Your task to perform on an android device: Add logitech g933 to the cart on walmart.com Image 0: 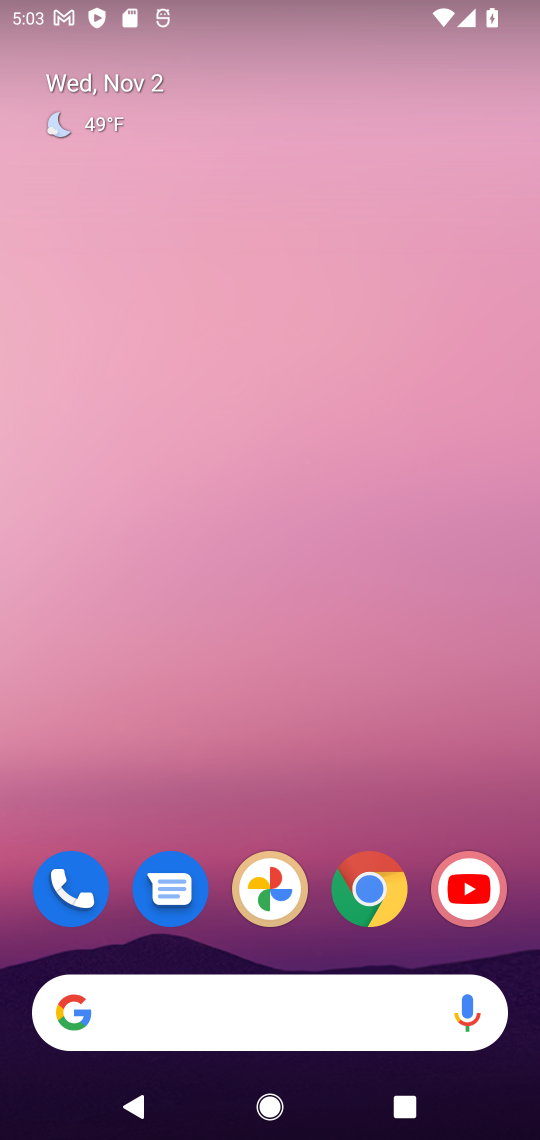
Step 0: click (373, 886)
Your task to perform on an android device: Add logitech g933 to the cart on walmart.com Image 1: 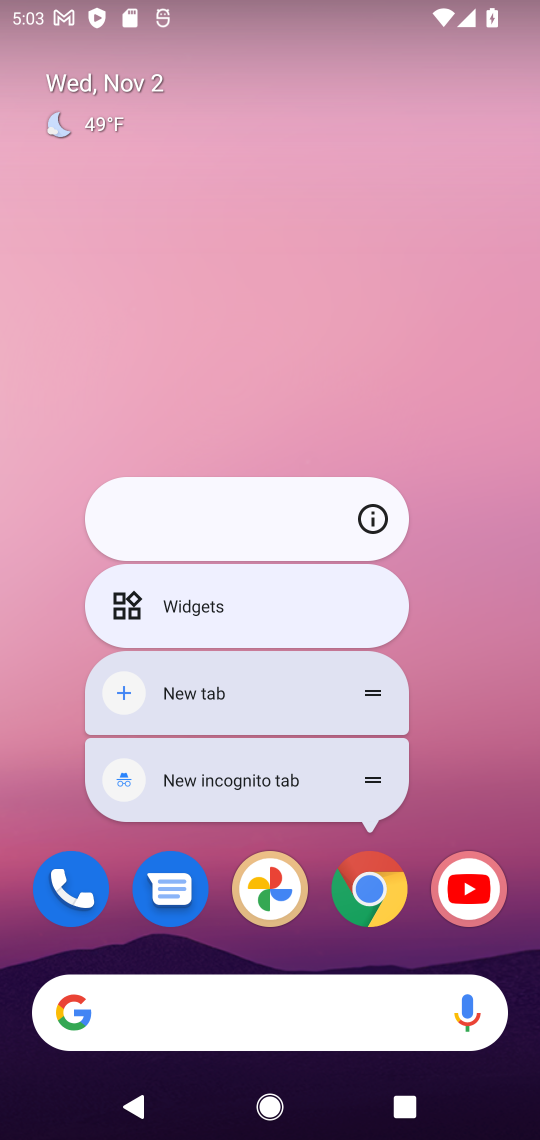
Step 1: click (375, 885)
Your task to perform on an android device: Add logitech g933 to the cart on walmart.com Image 2: 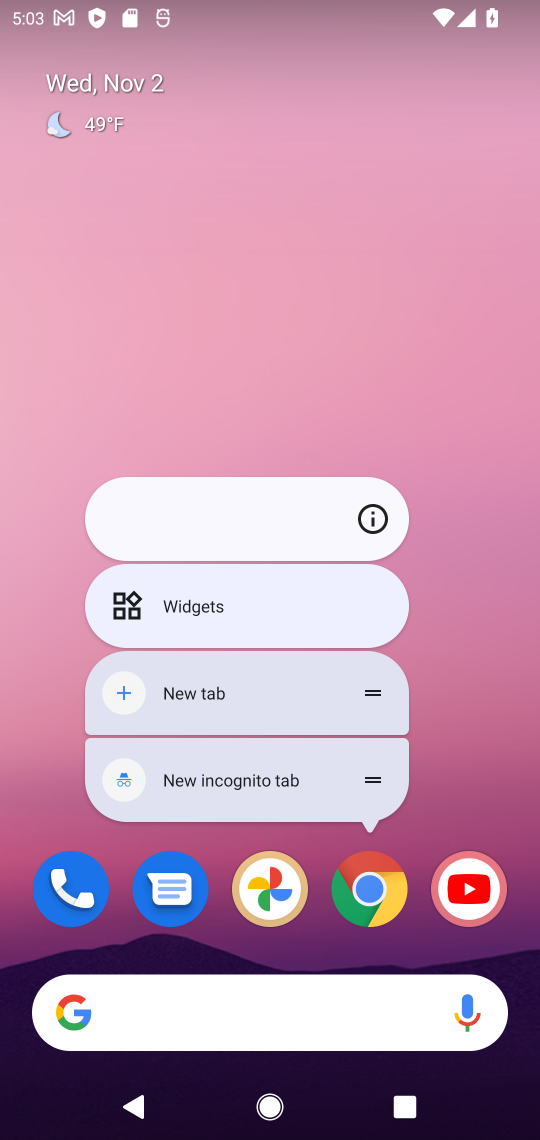
Step 2: click (364, 887)
Your task to perform on an android device: Add logitech g933 to the cart on walmart.com Image 3: 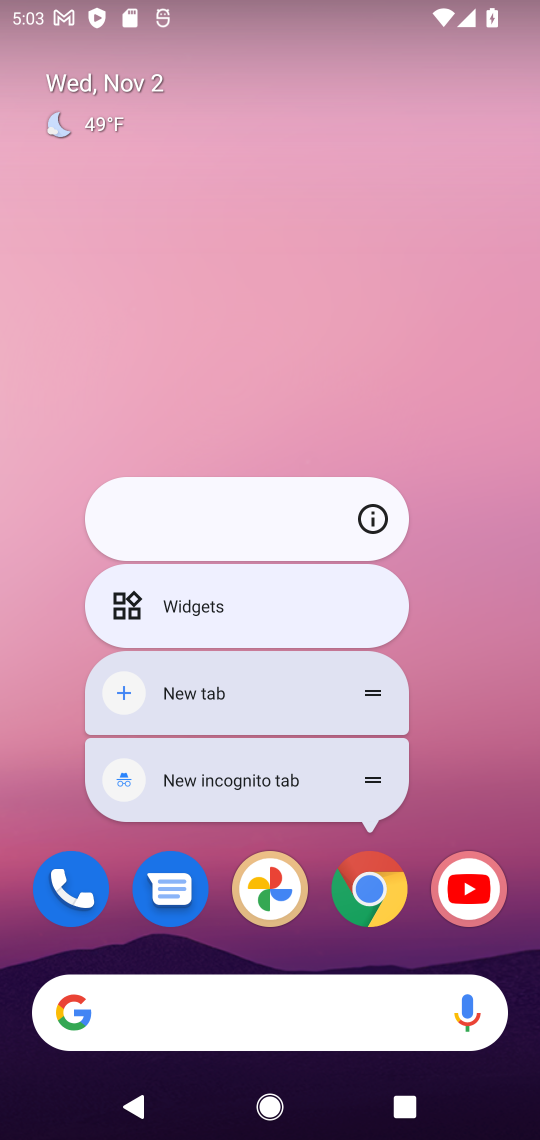
Step 3: click (364, 887)
Your task to perform on an android device: Add logitech g933 to the cart on walmart.com Image 4: 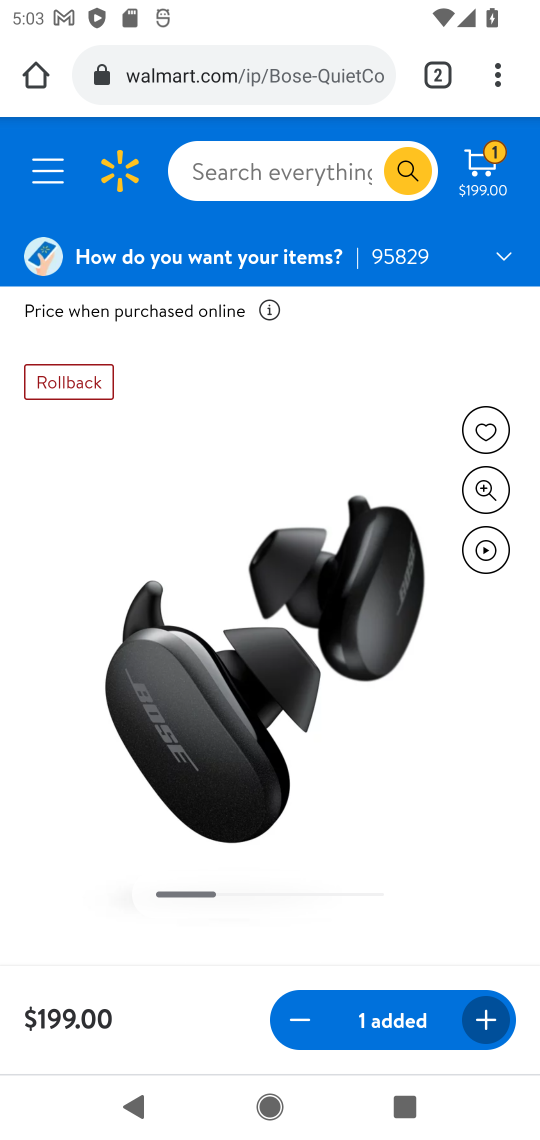
Step 4: click (295, 176)
Your task to perform on an android device: Add logitech g933 to the cart on walmart.com Image 5: 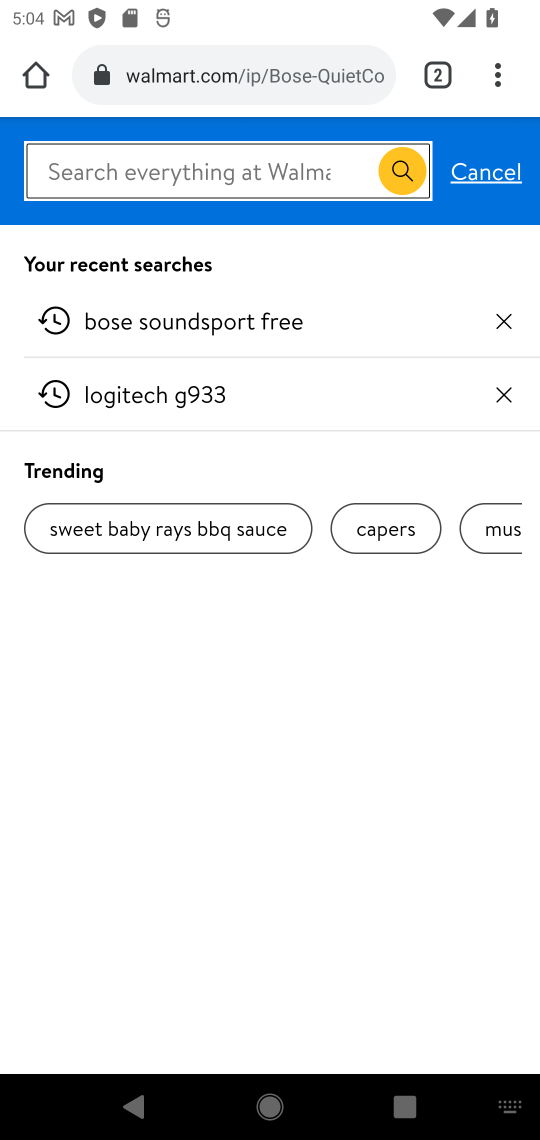
Step 5: type "logitech g933"
Your task to perform on an android device: Add logitech g933 to the cart on walmart.com Image 6: 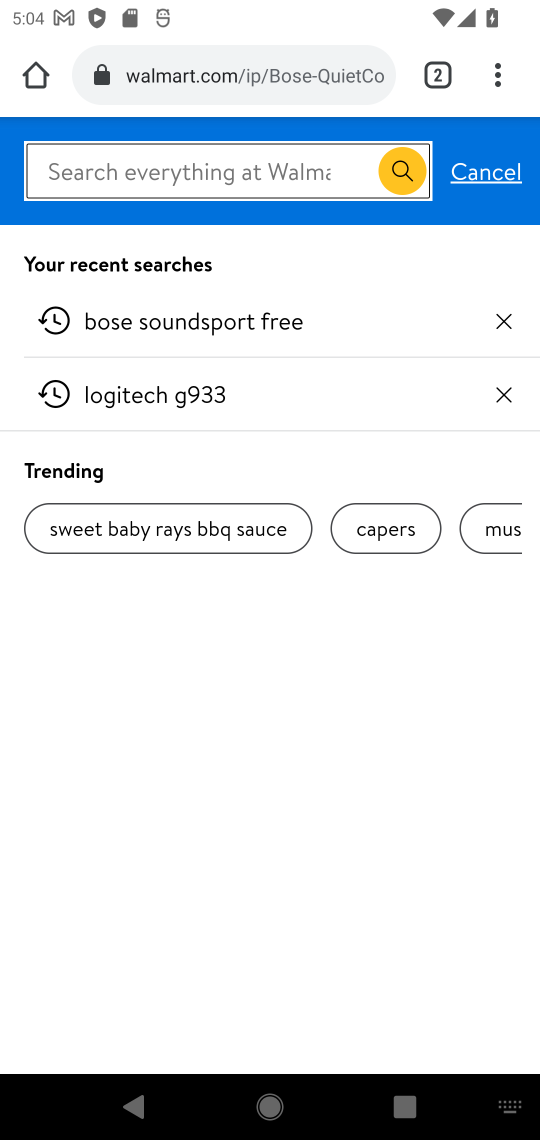
Step 6: press enter
Your task to perform on an android device: Add logitech g933 to the cart on walmart.com Image 7: 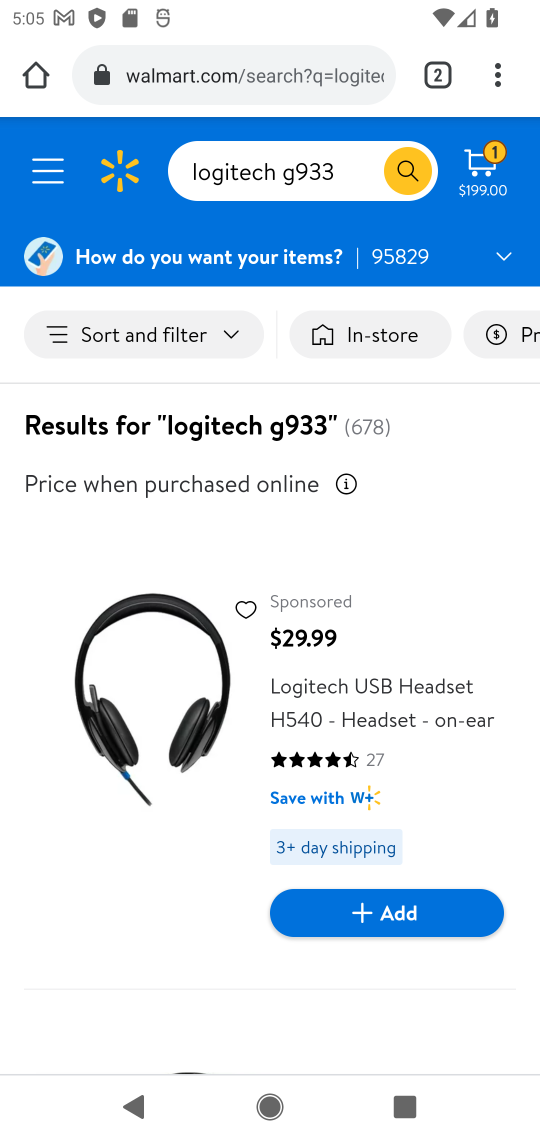
Step 7: click (397, 913)
Your task to perform on an android device: Add logitech g933 to the cart on walmart.com Image 8: 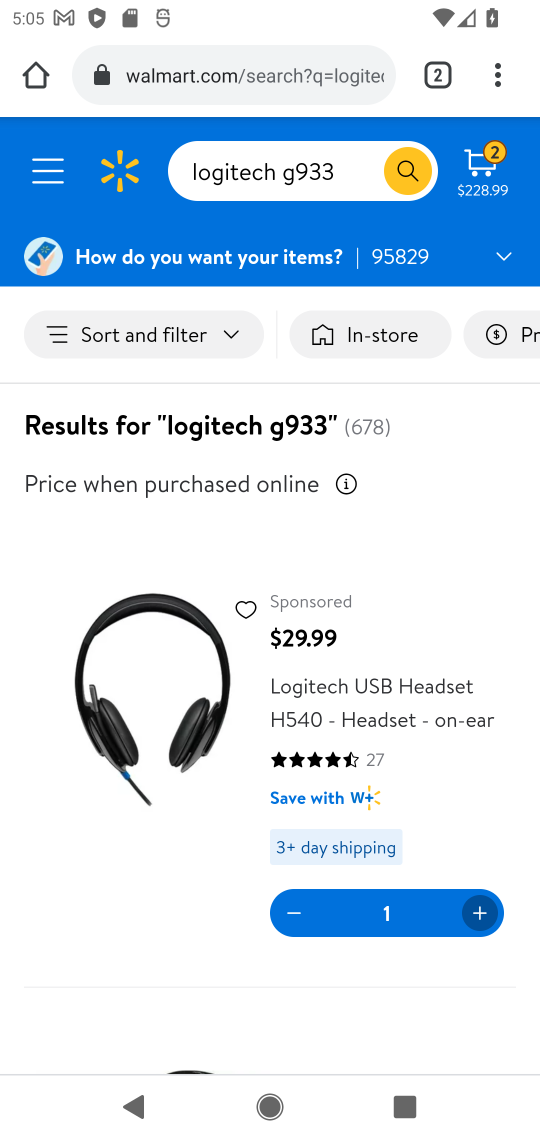
Step 8: task complete